Your task to perform on an android device: turn off wifi Image 0: 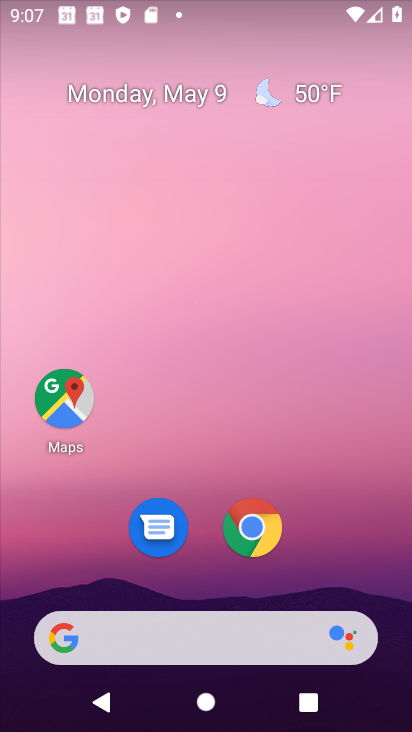
Step 0: drag from (196, 597) to (250, 67)
Your task to perform on an android device: turn off wifi Image 1: 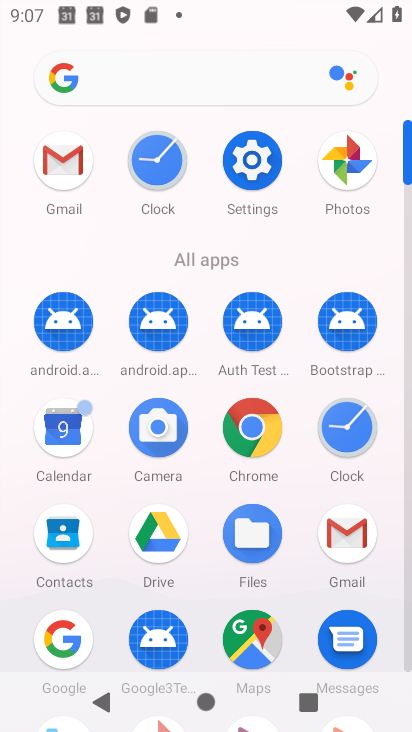
Step 1: click (260, 174)
Your task to perform on an android device: turn off wifi Image 2: 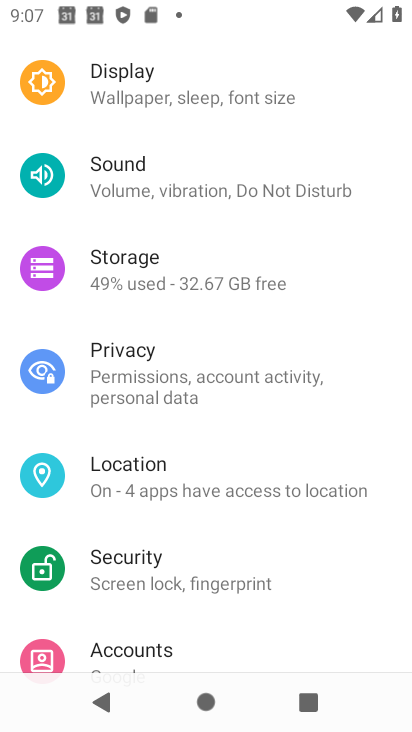
Step 2: drag from (238, 170) to (222, 613)
Your task to perform on an android device: turn off wifi Image 3: 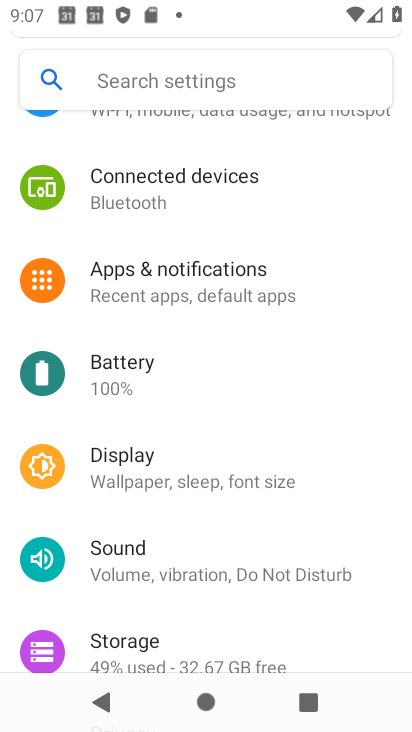
Step 3: drag from (186, 208) to (183, 608)
Your task to perform on an android device: turn off wifi Image 4: 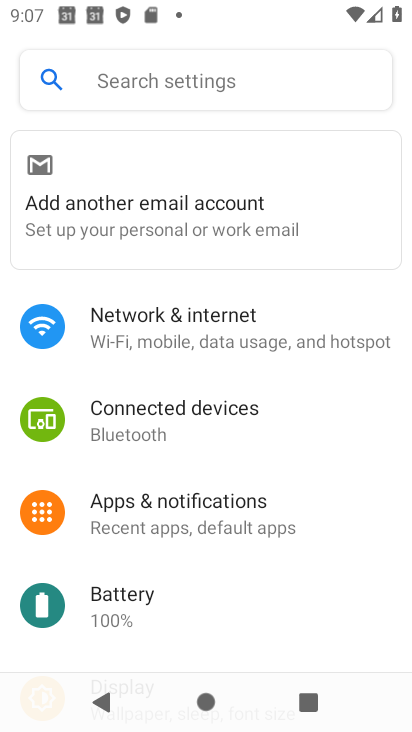
Step 4: click (157, 343)
Your task to perform on an android device: turn off wifi Image 5: 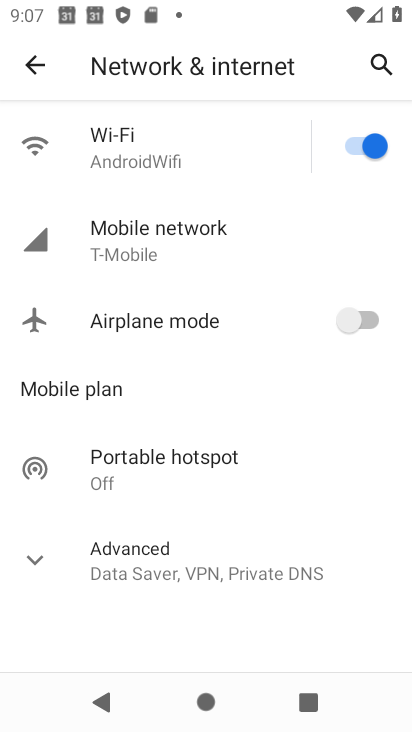
Step 5: click (347, 140)
Your task to perform on an android device: turn off wifi Image 6: 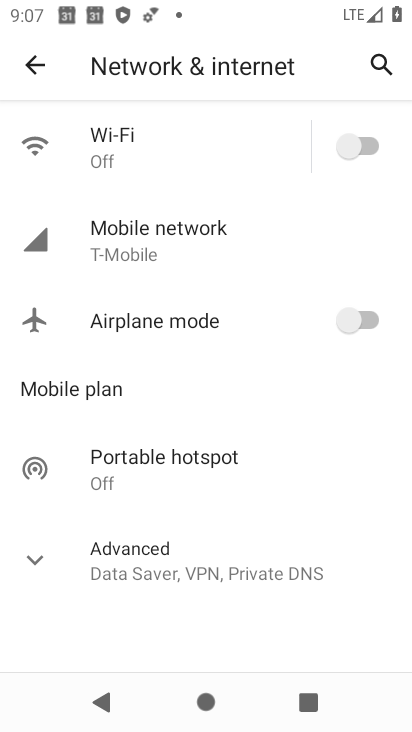
Step 6: task complete